Your task to perform on an android device: find snoozed emails in the gmail app Image 0: 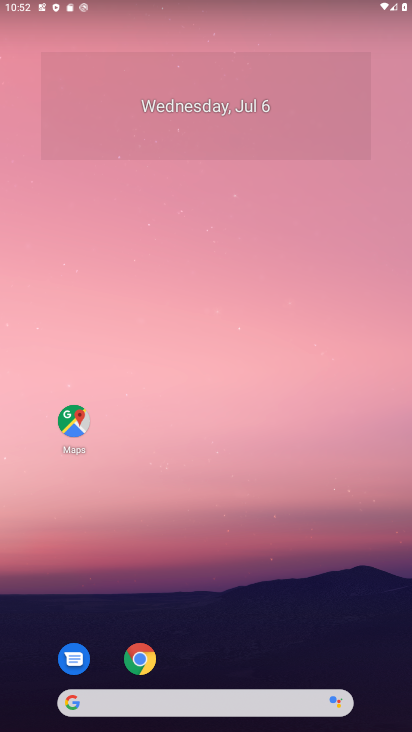
Step 0: drag from (236, 581) to (266, 41)
Your task to perform on an android device: find snoozed emails in the gmail app Image 1: 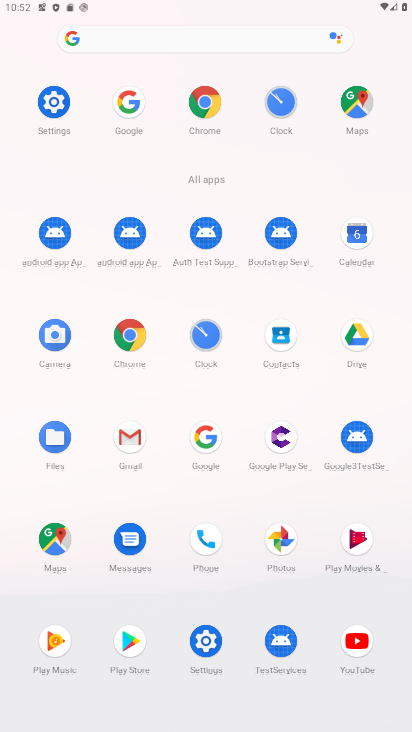
Step 1: click (132, 441)
Your task to perform on an android device: find snoozed emails in the gmail app Image 2: 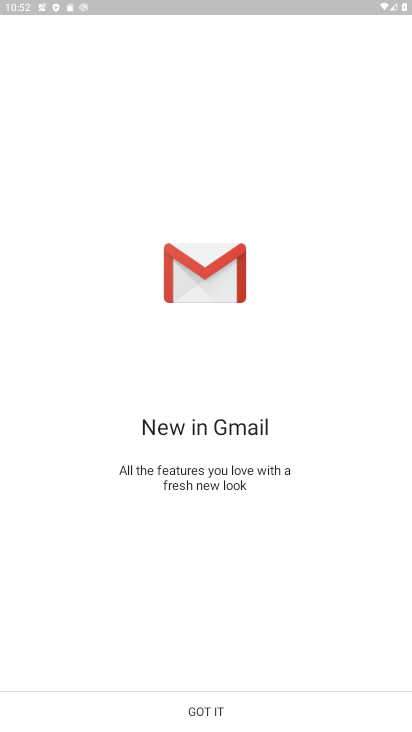
Step 2: click (205, 719)
Your task to perform on an android device: find snoozed emails in the gmail app Image 3: 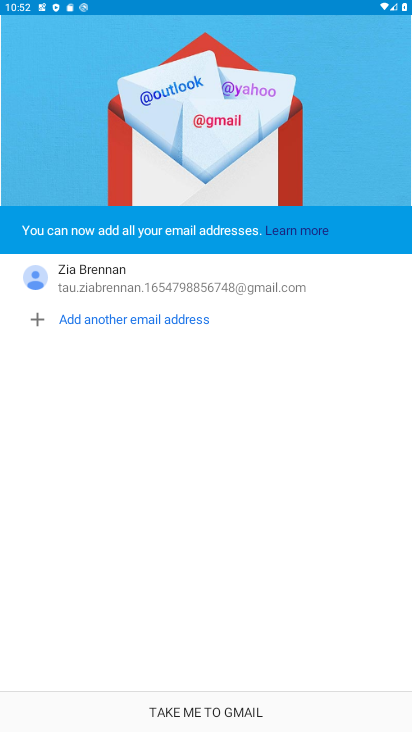
Step 3: click (205, 702)
Your task to perform on an android device: find snoozed emails in the gmail app Image 4: 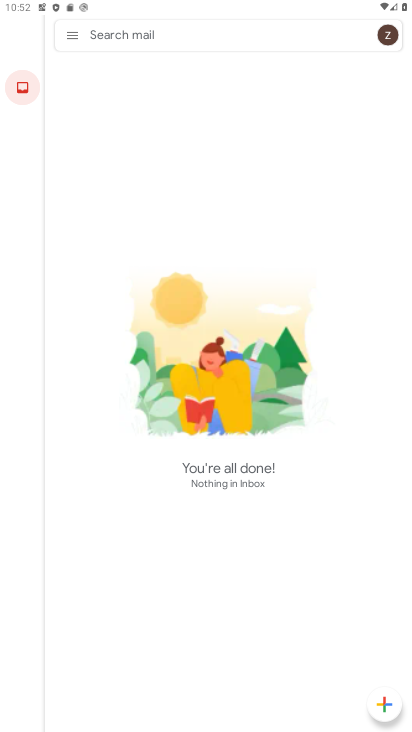
Step 4: click (76, 33)
Your task to perform on an android device: find snoozed emails in the gmail app Image 5: 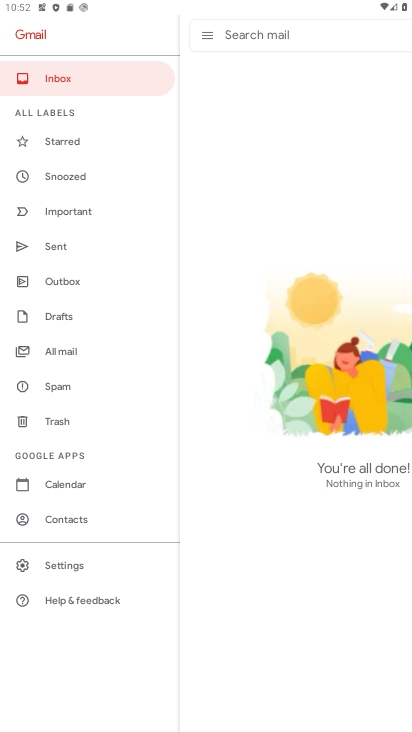
Step 5: click (64, 177)
Your task to perform on an android device: find snoozed emails in the gmail app Image 6: 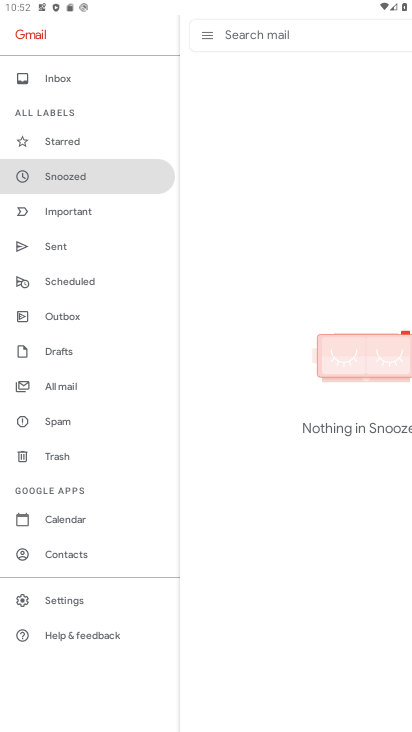
Step 6: click (65, 178)
Your task to perform on an android device: find snoozed emails in the gmail app Image 7: 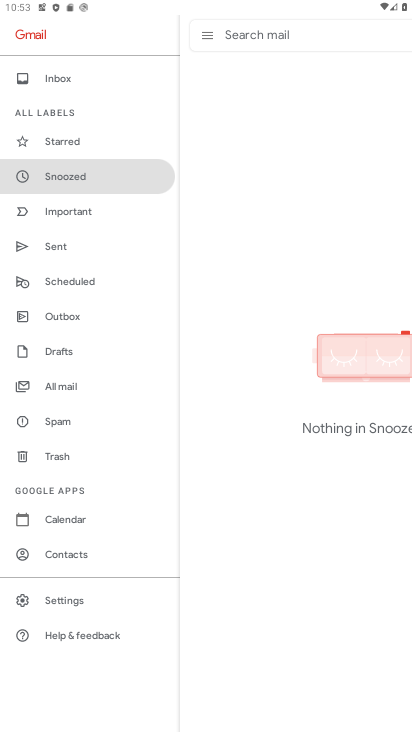
Step 7: click (60, 171)
Your task to perform on an android device: find snoozed emails in the gmail app Image 8: 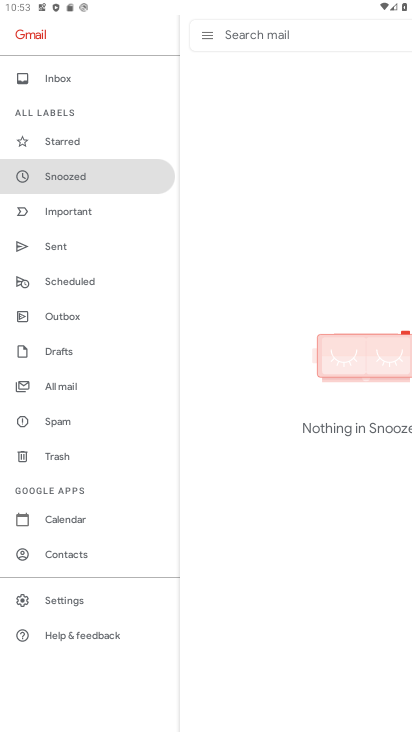
Step 8: task complete